Your task to perform on an android device: Toggle the flashlight Image 0: 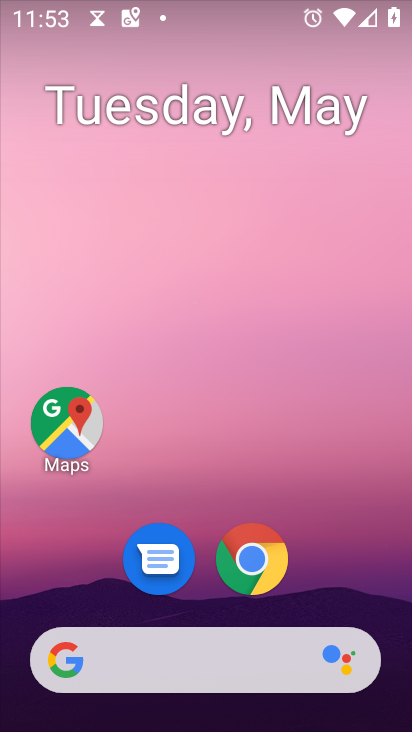
Step 0: drag from (329, 519) to (386, 13)
Your task to perform on an android device: Toggle the flashlight Image 1: 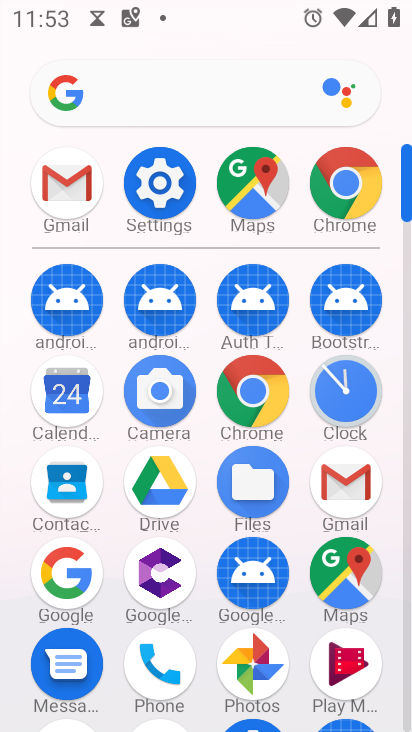
Step 1: click (157, 202)
Your task to perform on an android device: Toggle the flashlight Image 2: 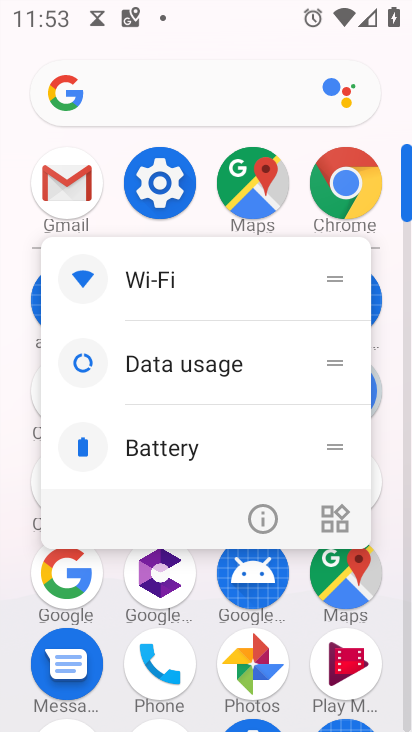
Step 2: click (157, 201)
Your task to perform on an android device: Toggle the flashlight Image 3: 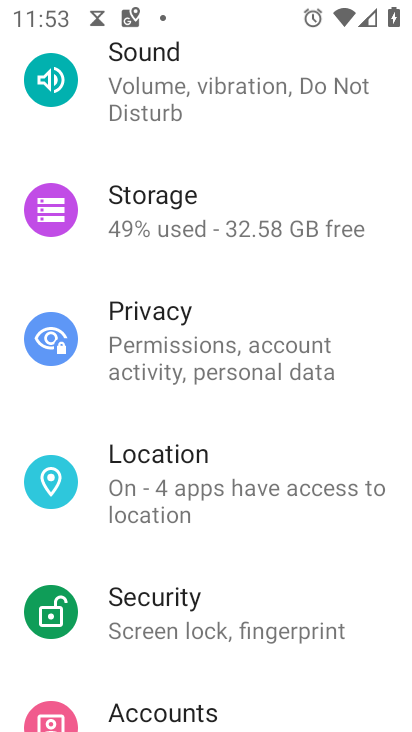
Step 3: task complete